Your task to perform on an android device: toggle pop-ups in chrome Image 0: 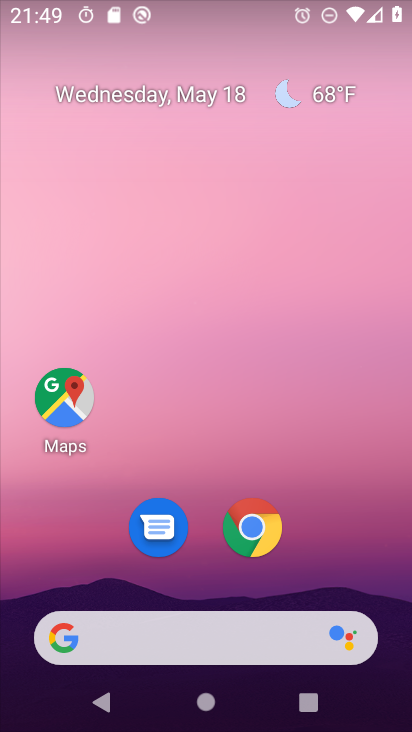
Step 0: click (250, 534)
Your task to perform on an android device: toggle pop-ups in chrome Image 1: 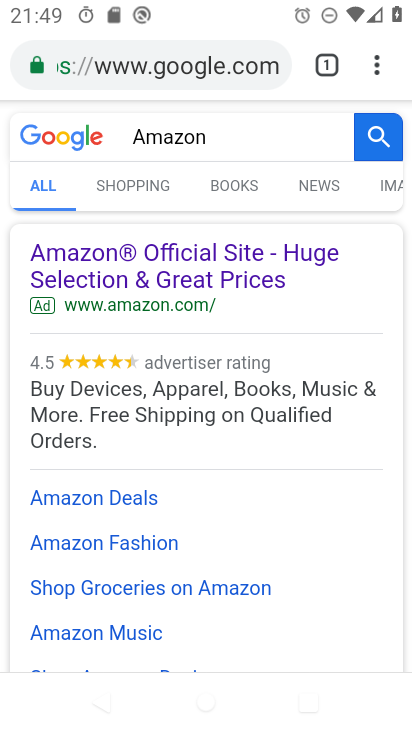
Step 1: click (371, 56)
Your task to perform on an android device: toggle pop-ups in chrome Image 2: 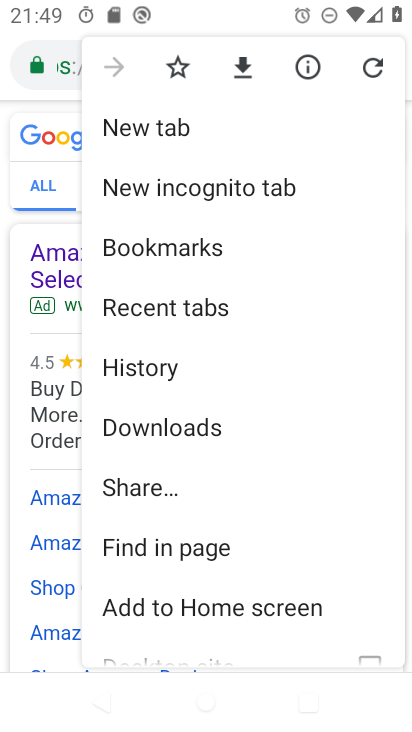
Step 2: drag from (337, 588) to (321, 326)
Your task to perform on an android device: toggle pop-ups in chrome Image 3: 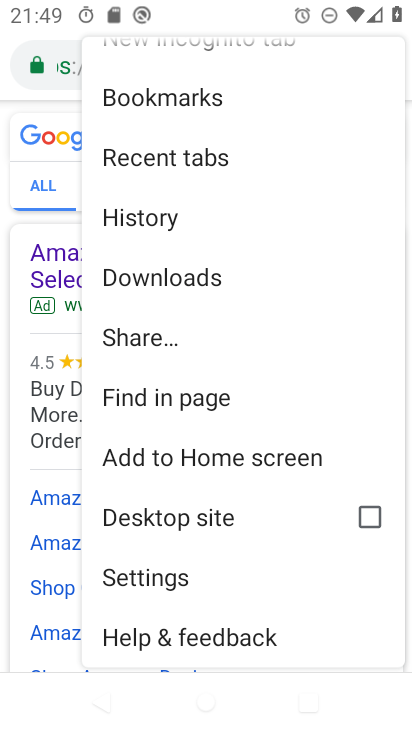
Step 3: drag from (316, 624) to (321, 357)
Your task to perform on an android device: toggle pop-ups in chrome Image 4: 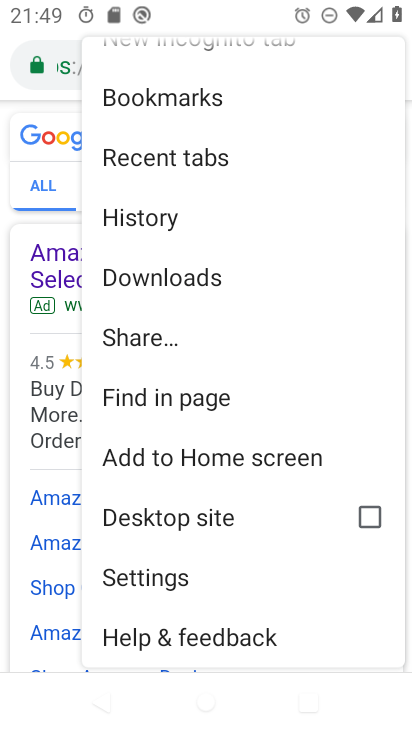
Step 4: click (137, 582)
Your task to perform on an android device: toggle pop-ups in chrome Image 5: 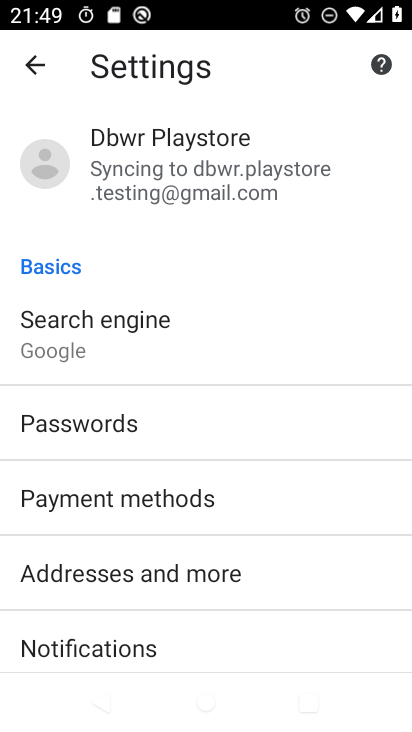
Step 5: drag from (279, 627) to (282, 297)
Your task to perform on an android device: toggle pop-ups in chrome Image 6: 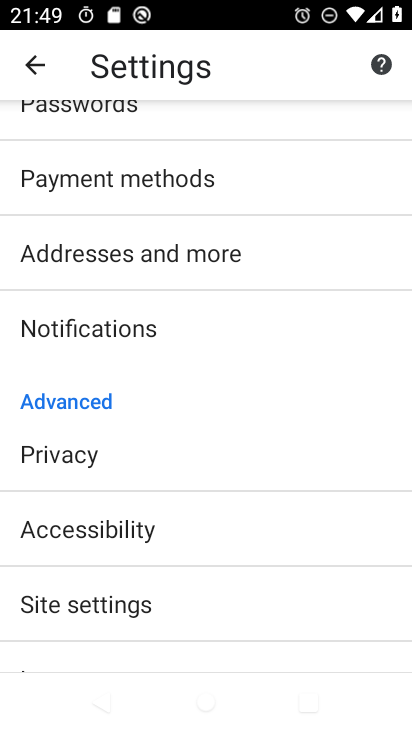
Step 6: drag from (276, 626) to (300, 323)
Your task to perform on an android device: toggle pop-ups in chrome Image 7: 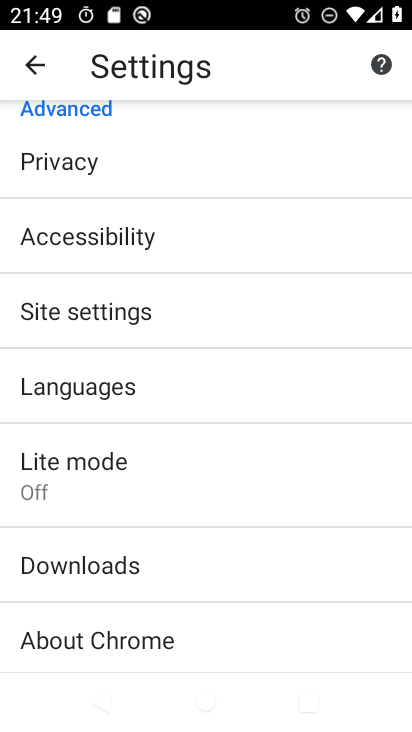
Step 7: drag from (290, 619) to (293, 395)
Your task to perform on an android device: toggle pop-ups in chrome Image 8: 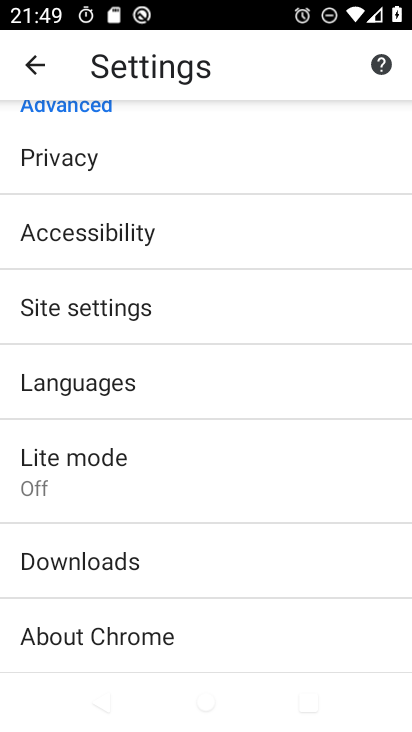
Step 8: click (90, 312)
Your task to perform on an android device: toggle pop-ups in chrome Image 9: 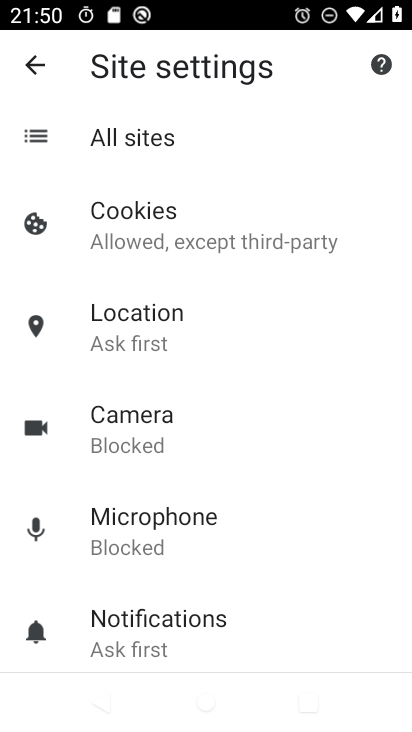
Step 9: drag from (275, 624) to (263, 345)
Your task to perform on an android device: toggle pop-ups in chrome Image 10: 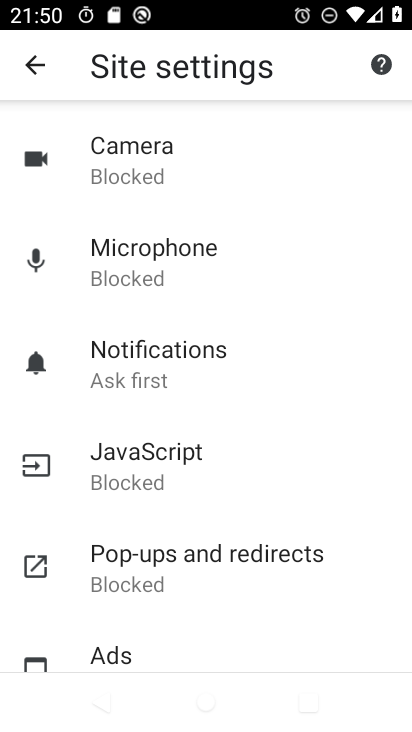
Step 10: drag from (264, 600) to (263, 446)
Your task to perform on an android device: toggle pop-ups in chrome Image 11: 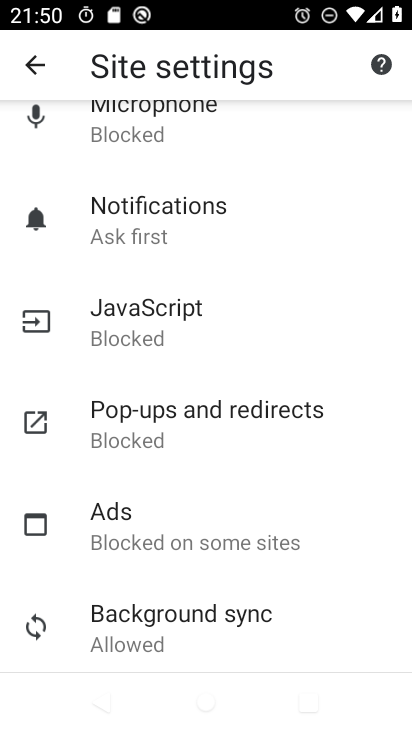
Step 11: click (132, 427)
Your task to perform on an android device: toggle pop-ups in chrome Image 12: 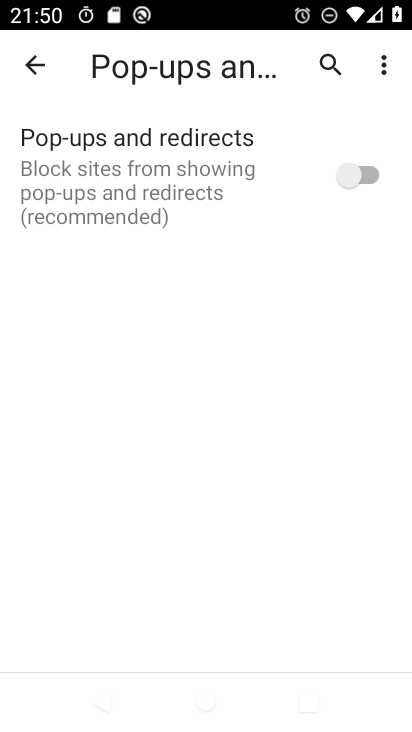
Step 12: click (361, 177)
Your task to perform on an android device: toggle pop-ups in chrome Image 13: 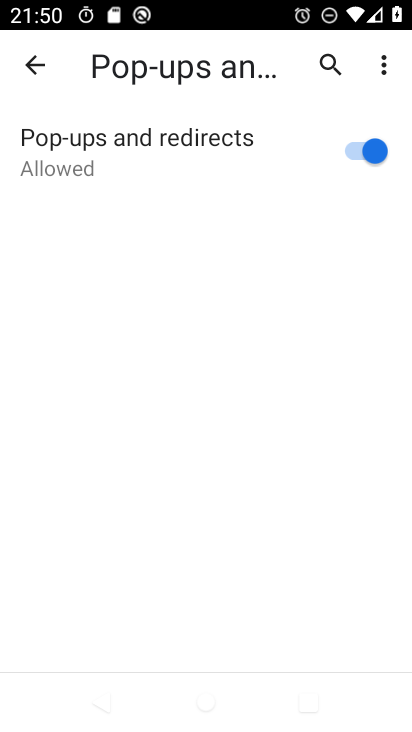
Step 13: task complete